Your task to perform on an android device: turn off priority inbox in the gmail app Image 0: 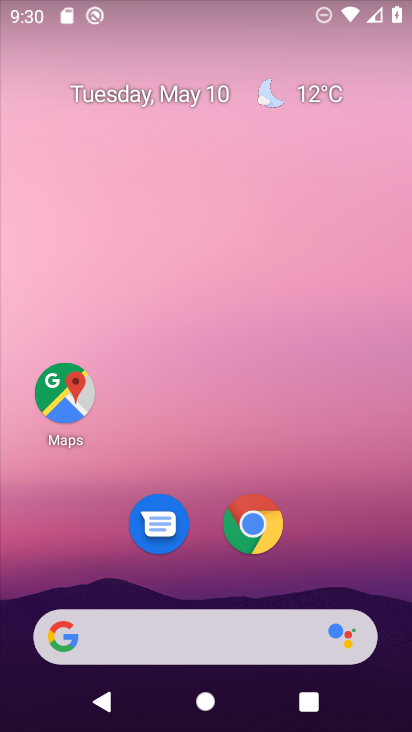
Step 0: drag from (331, 557) to (280, 74)
Your task to perform on an android device: turn off priority inbox in the gmail app Image 1: 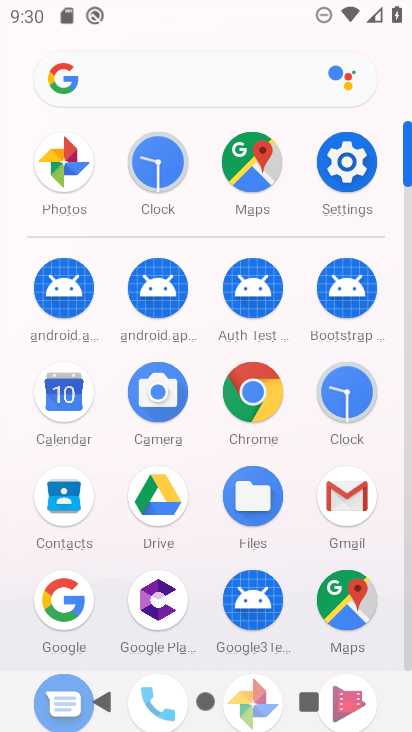
Step 1: click (342, 491)
Your task to perform on an android device: turn off priority inbox in the gmail app Image 2: 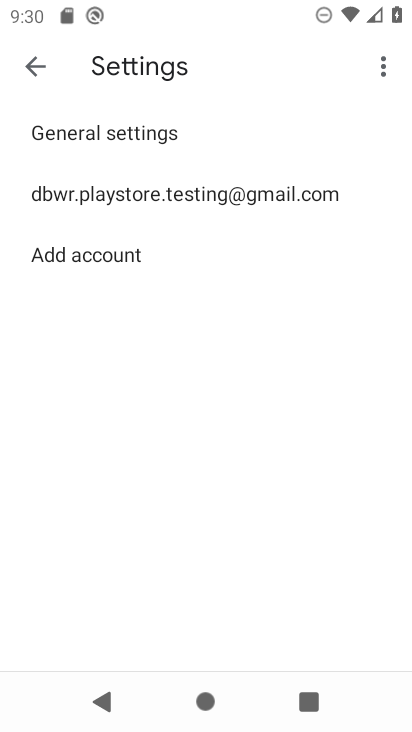
Step 2: click (85, 183)
Your task to perform on an android device: turn off priority inbox in the gmail app Image 3: 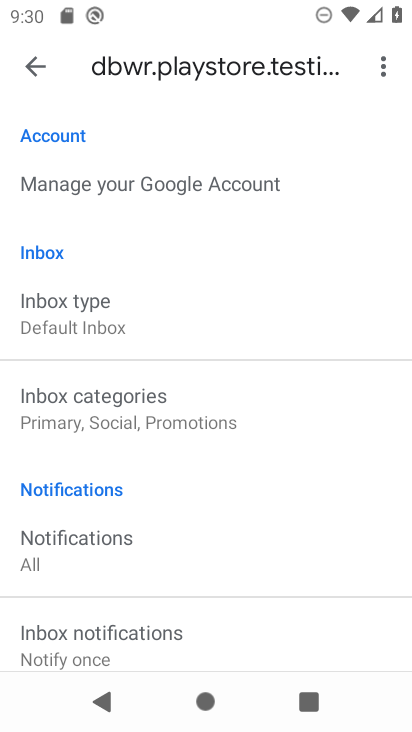
Step 3: task complete